Your task to perform on an android device: Show me popular games on the Play Store Image 0: 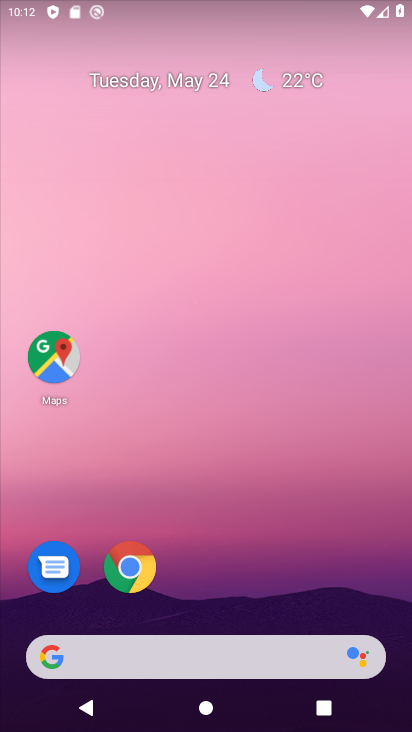
Step 0: drag from (249, 605) to (238, 1)
Your task to perform on an android device: Show me popular games on the Play Store Image 1: 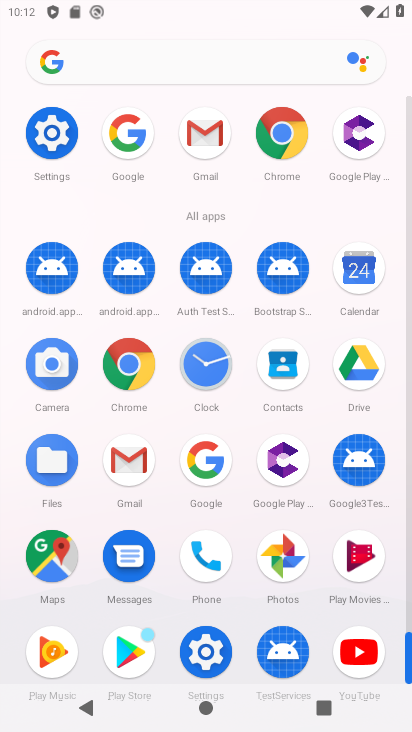
Step 1: click (137, 641)
Your task to perform on an android device: Show me popular games on the Play Store Image 2: 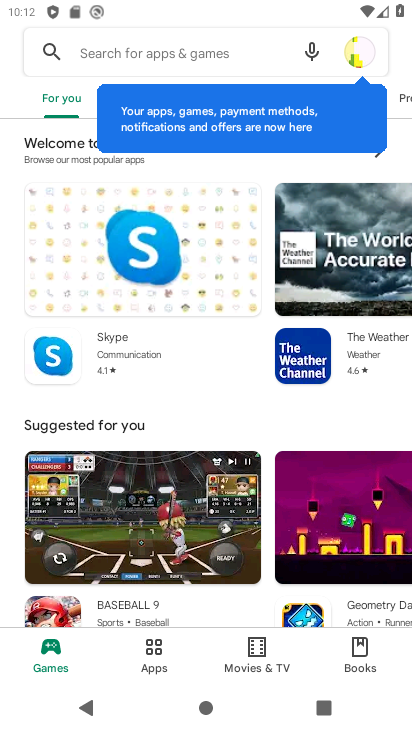
Step 2: drag from (84, 316) to (100, 373)
Your task to perform on an android device: Show me popular games on the Play Store Image 3: 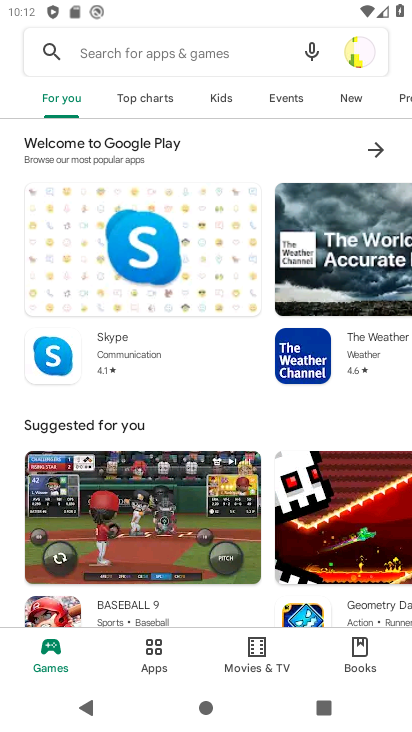
Step 3: click (136, 94)
Your task to perform on an android device: Show me popular games on the Play Store Image 4: 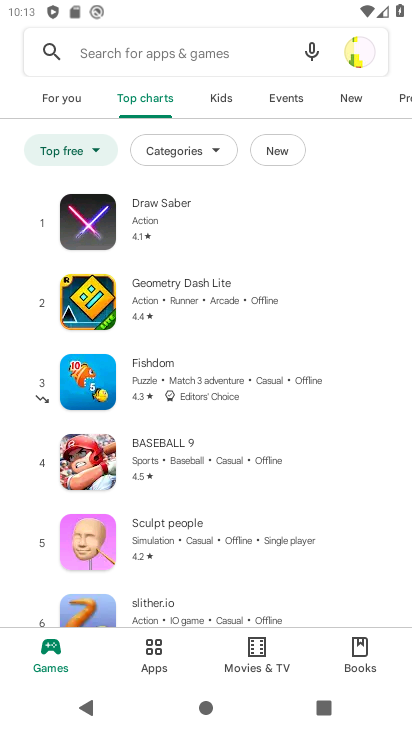
Step 4: task complete